Your task to perform on an android device: Open Yahoo.com Image 0: 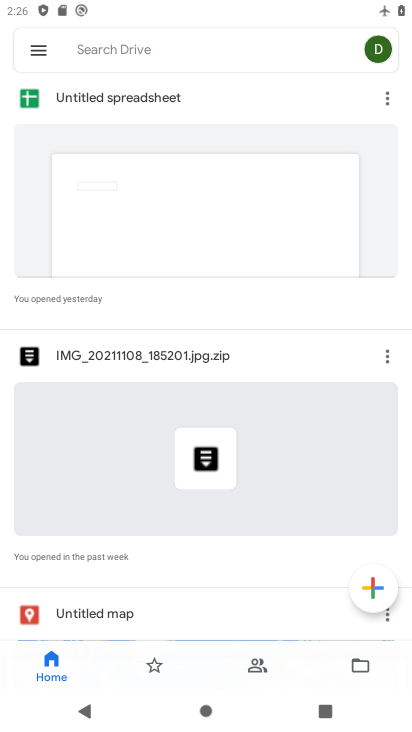
Step 0: press home button
Your task to perform on an android device: Open Yahoo.com Image 1: 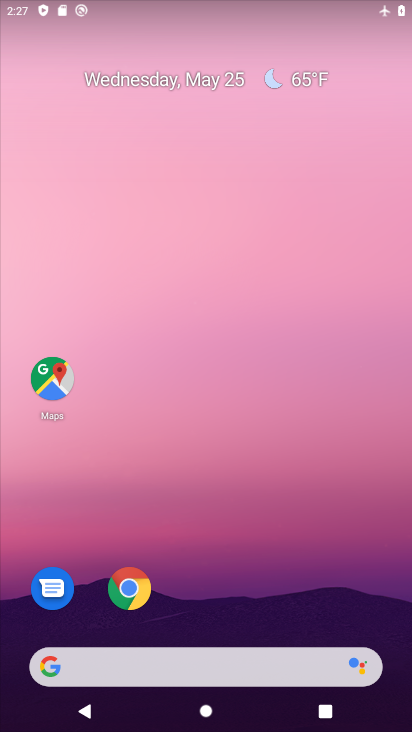
Step 1: click (129, 585)
Your task to perform on an android device: Open Yahoo.com Image 2: 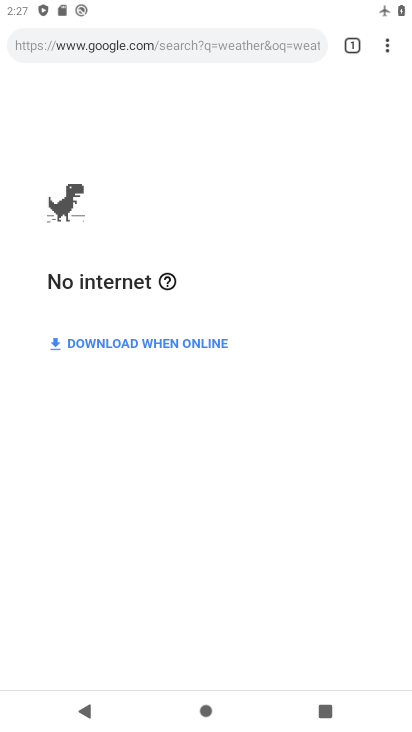
Step 2: press home button
Your task to perform on an android device: Open Yahoo.com Image 3: 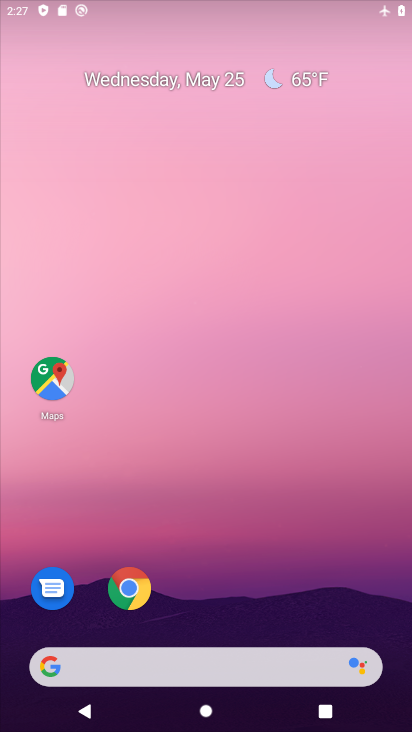
Step 3: drag from (184, 535) to (194, 62)
Your task to perform on an android device: Open Yahoo.com Image 4: 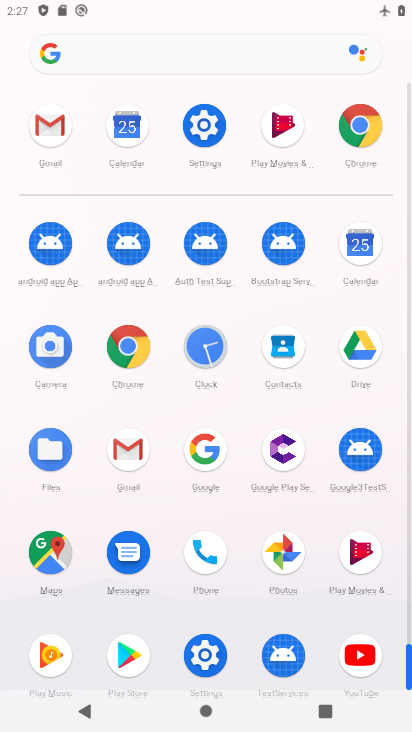
Step 4: click (203, 122)
Your task to perform on an android device: Open Yahoo.com Image 5: 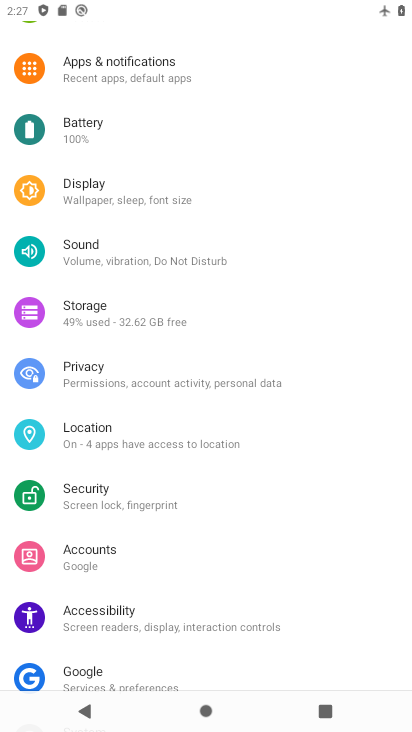
Step 5: drag from (159, 92) to (139, 571)
Your task to perform on an android device: Open Yahoo.com Image 6: 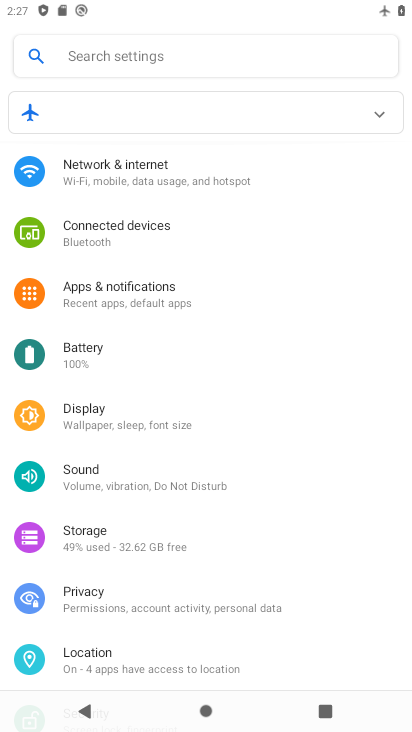
Step 6: click (183, 172)
Your task to perform on an android device: Open Yahoo.com Image 7: 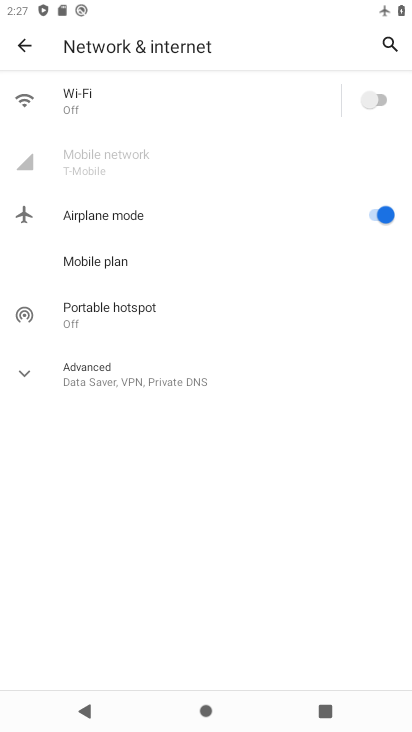
Step 7: click (371, 102)
Your task to perform on an android device: Open Yahoo.com Image 8: 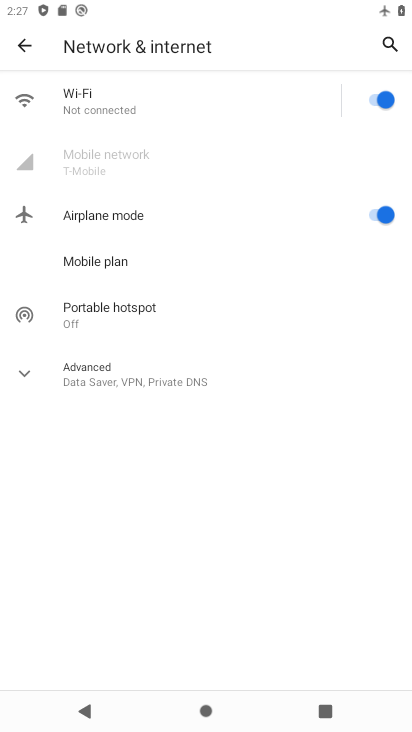
Step 8: click (373, 213)
Your task to perform on an android device: Open Yahoo.com Image 9: 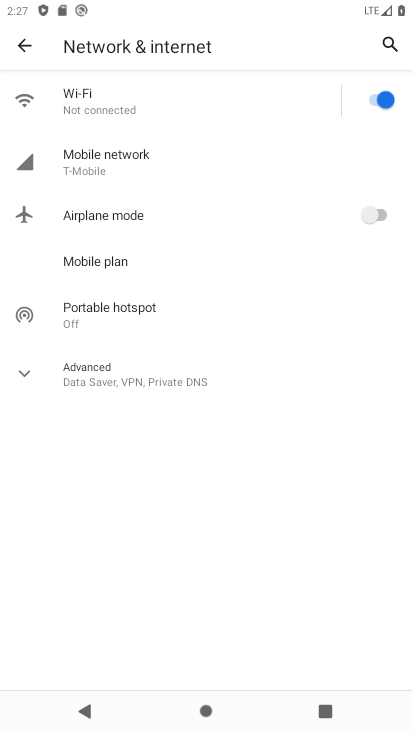
Step 9: task complete